Your task to perform on an android device: View the shopping cart on amazon. Add bose soundlink to the cart on amazon Image 0: 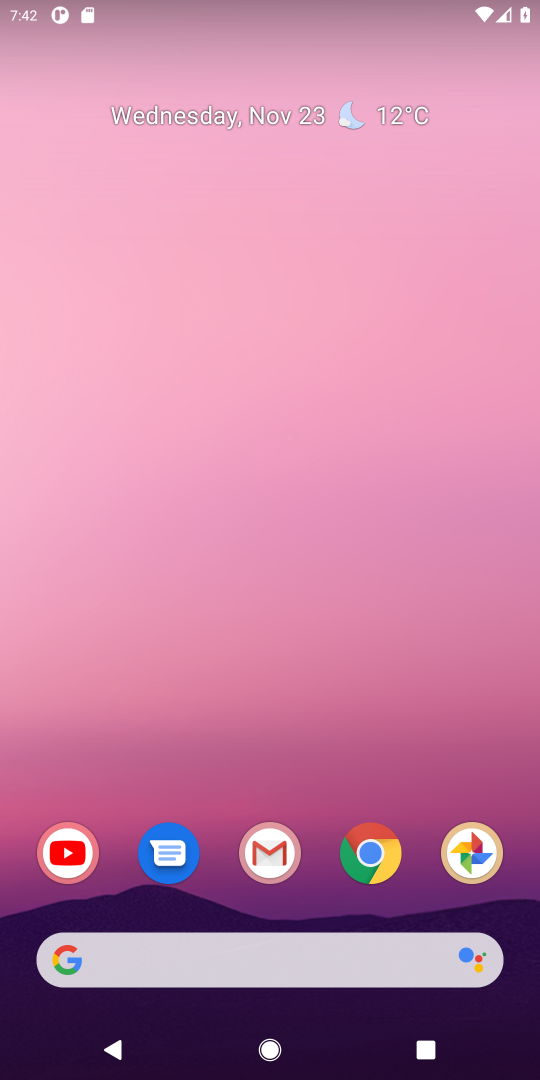
Step 0: click (378, 877)
Your task to perform on an android device: View the shopping cart on amazon. Add bose soundlink to the cart on amazon Image 1: 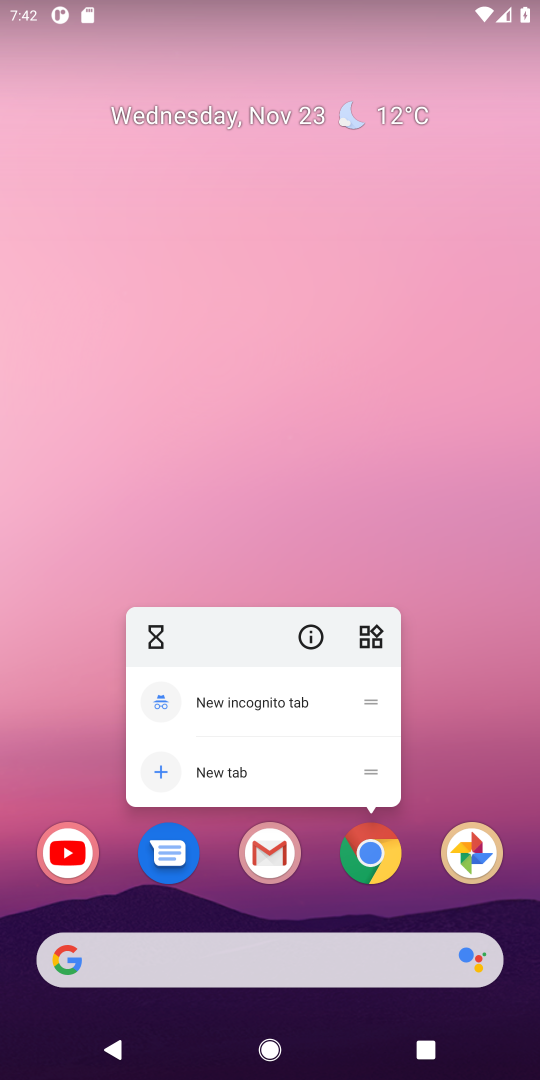
Step 1: click (378, 861)
Your task to perform on an android device: View the shopping cart on amazon. Add bose soundlink to the cart on amazon Image 2: 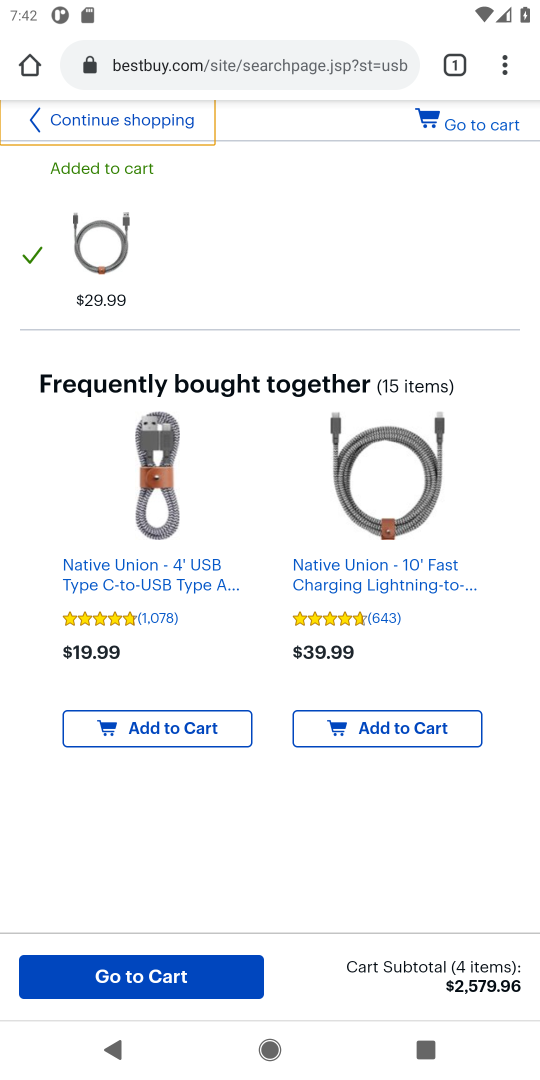
Step 2: click (200, 66)
Your task to perform on an android device: View the shopping cart on amazon. Add bose soundlink to the cart on amazon Image 3: 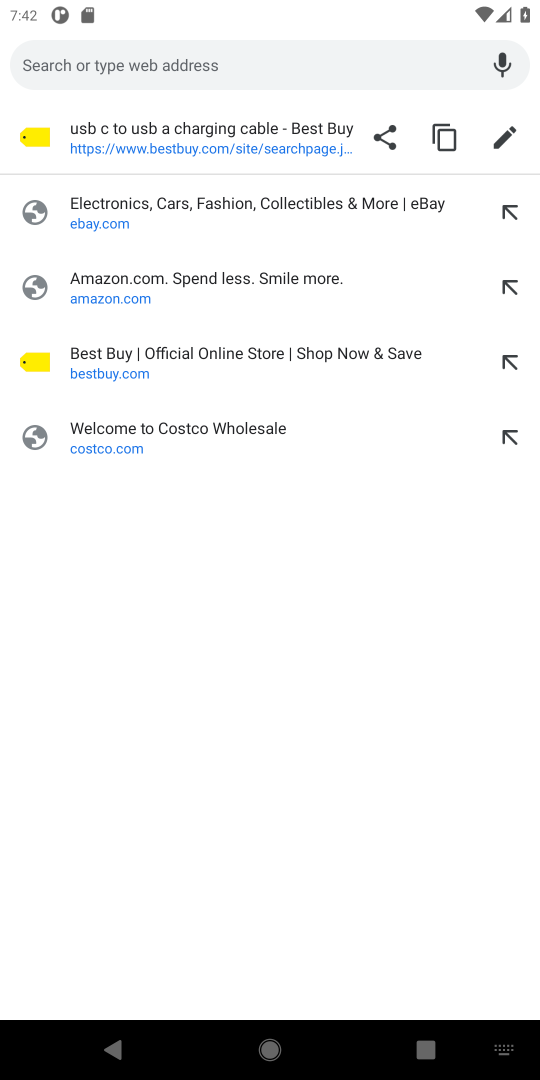
Step 3: click (104, 280)
Your task to perform on an android device: View the shopping cart on amazon. Add bose soundlink to the cart on amazon Image 4: 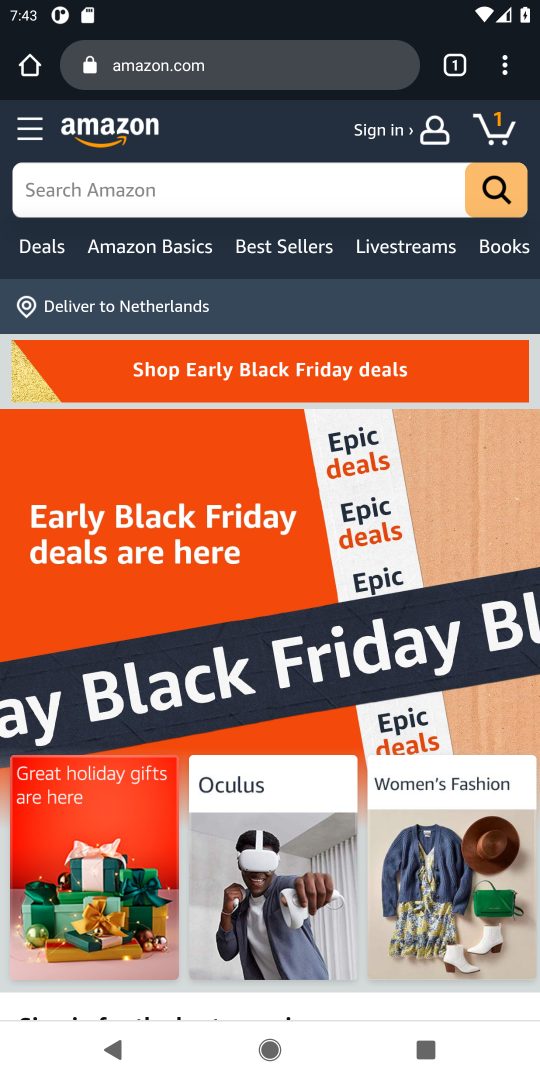
Step 4: click (498, 132)
Your task to perform on an android device: View the shopping cart on amazon. Add bose soundlink to the cart on amazon Image 5: 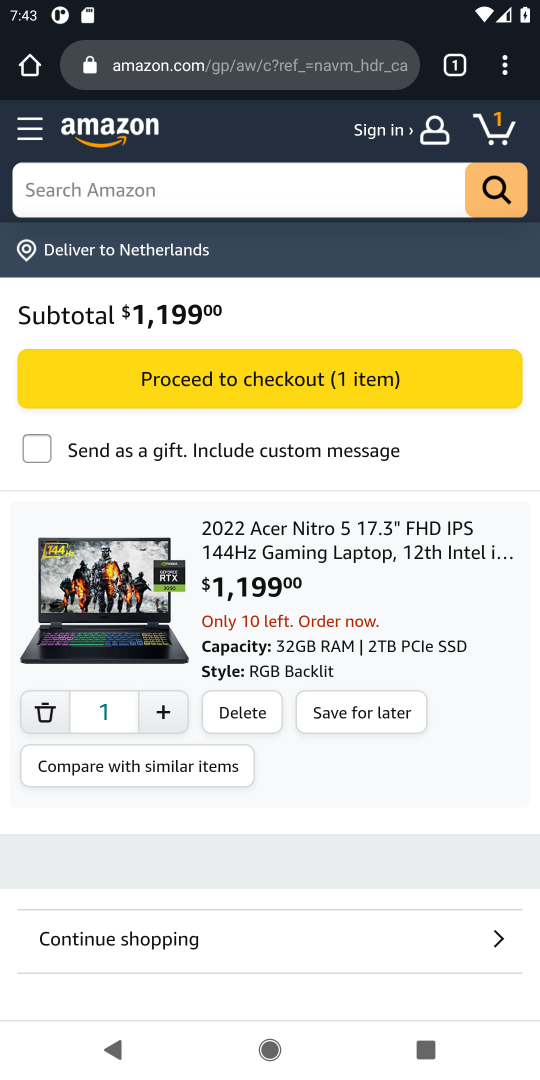
Step 5: click (140, 194)
Your task to perform on an android device: View the shopping cart on amazon. Add bose soundlink to the cart on amazon Image 6: 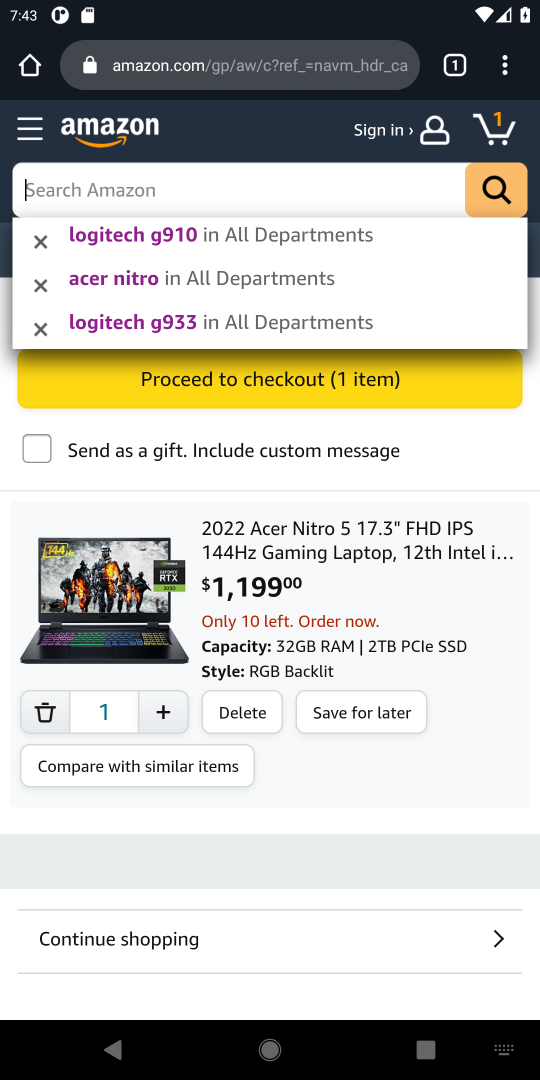
Step 6: type "bose soundlink"
Your task to perform on an android device: View the shopping cart on amazon. Add bose soundlink to the cart on amazon Image 7: 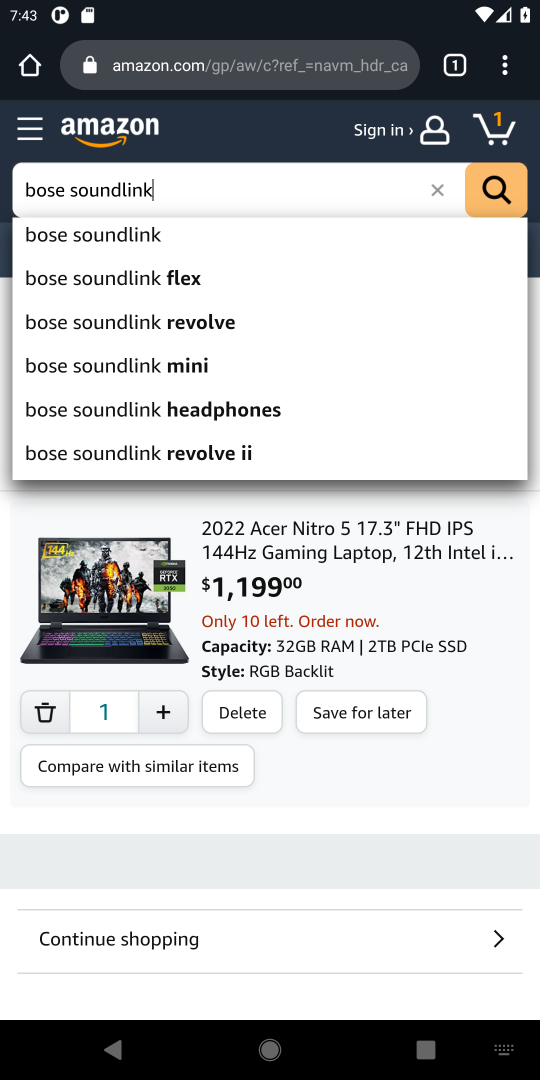
Step 7: click (91, 239)
Your task to perform on an android device: View the shopping cart on amazon. Add bose soundlink to the cart on amazon Image 8: 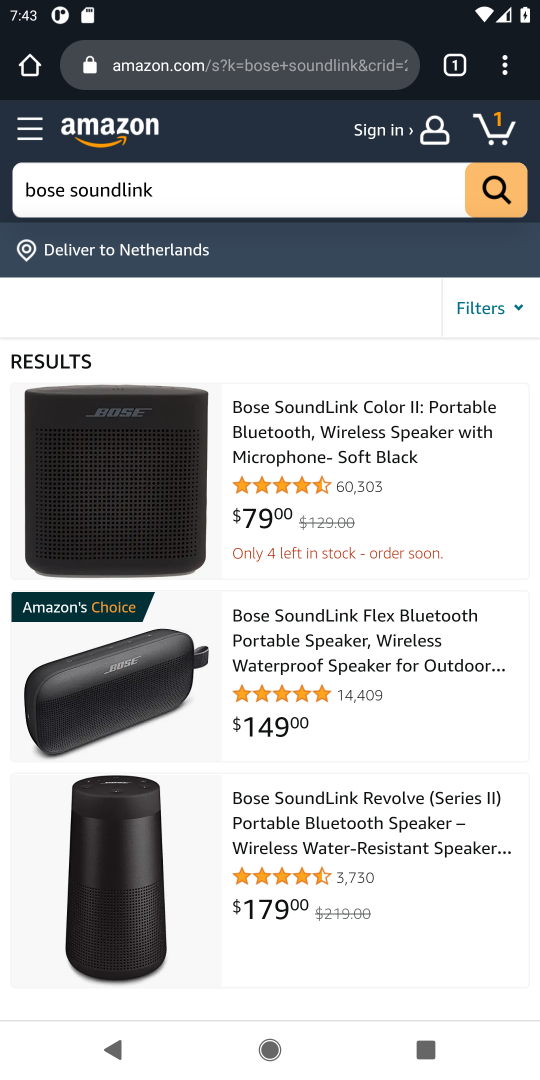
Step 8: click (86, 489)
Your task to perform on an android device: View the shopping cart on amazon. Add bose soundlink to the cart on amazon Image 9: 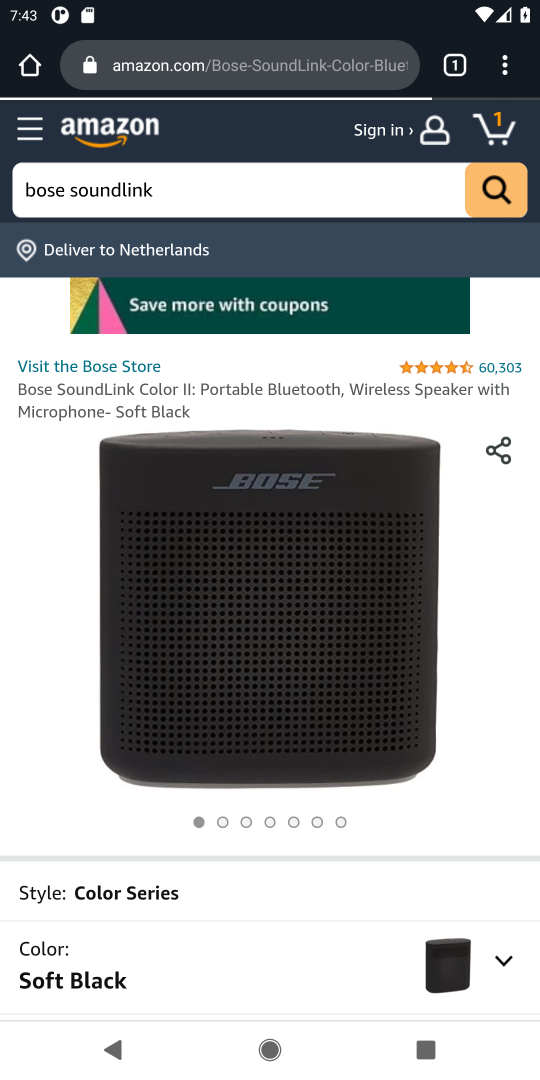
Step 9: drag from (367, 809) to (366, 365)
Your task to perform on an android device: View the shopping cart on amazon. Add bose soundlink to the cart on amazon Image 10: 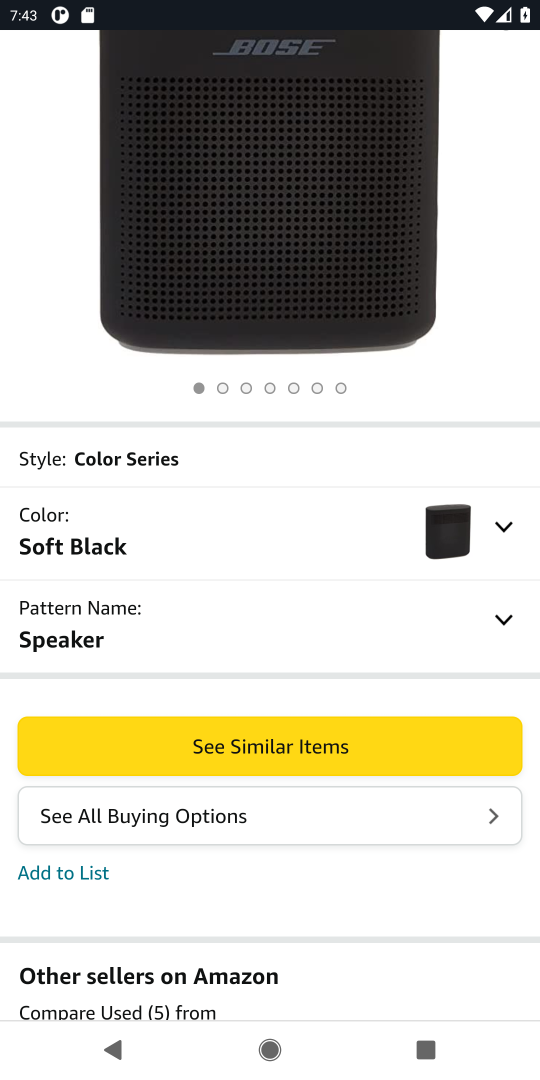
Step 10: press back button
Your task to perform on an android device: View the shopping cart on amazon. Add bose soundlink to the cart on amazon Image 11: 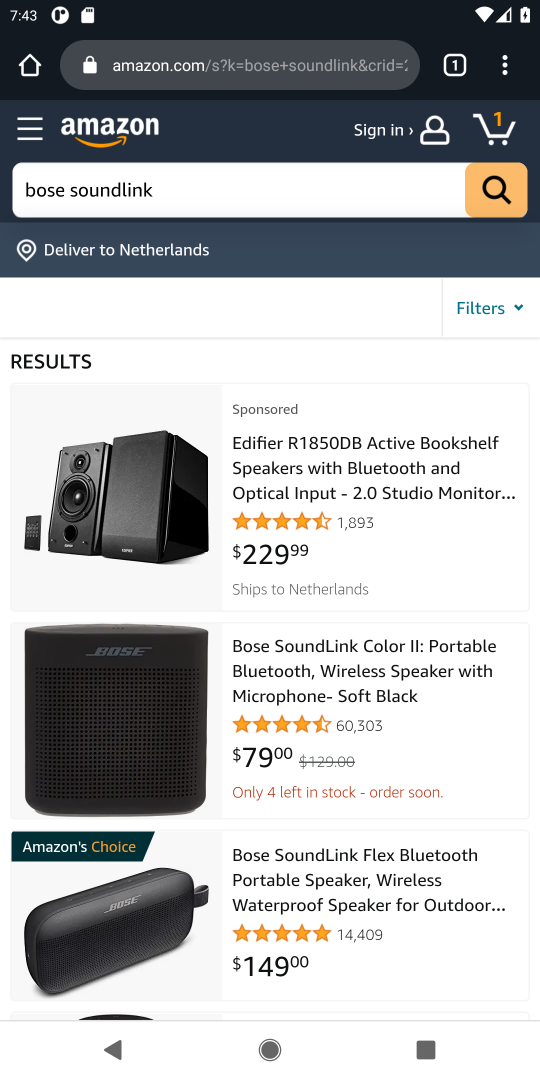
Step 11: drag from (201, 634) to (208, 454)
Your task to perform on an android device: View the shopping cart on amazon. Add bose soundlink to the cart on amazon Image 12: 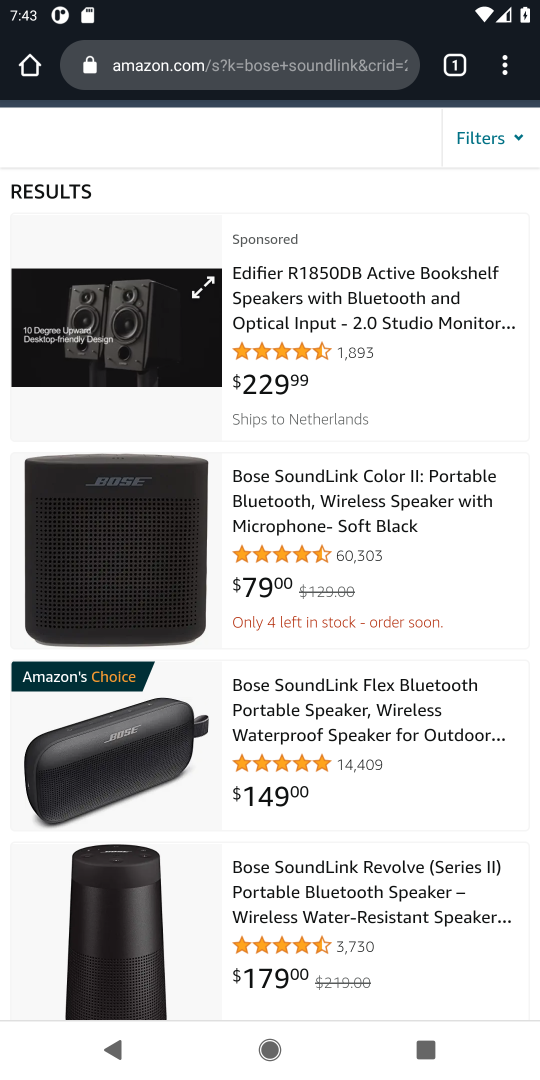
Step 12: click (136, 576)
Your task to perform on an android device: View the shopping cart on amazon. Add bose soundlink to the cart on amazon Image 13: 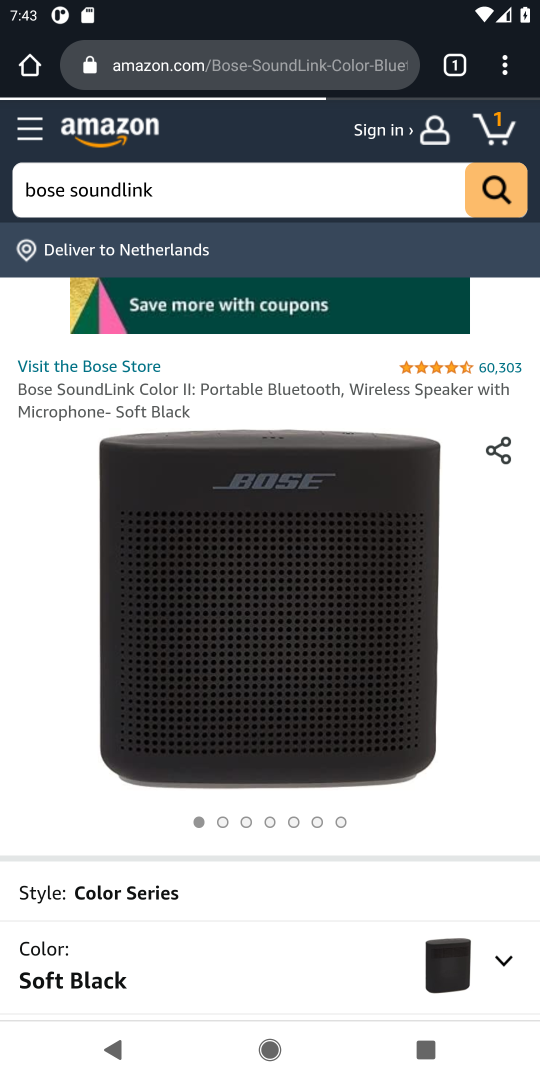
Step 13: drag from (178, 741) to (195, 349)
Your task to perform on an android device: View the shopping cart on amazon. Add bose soundlink to the cart on amazon Image 14: 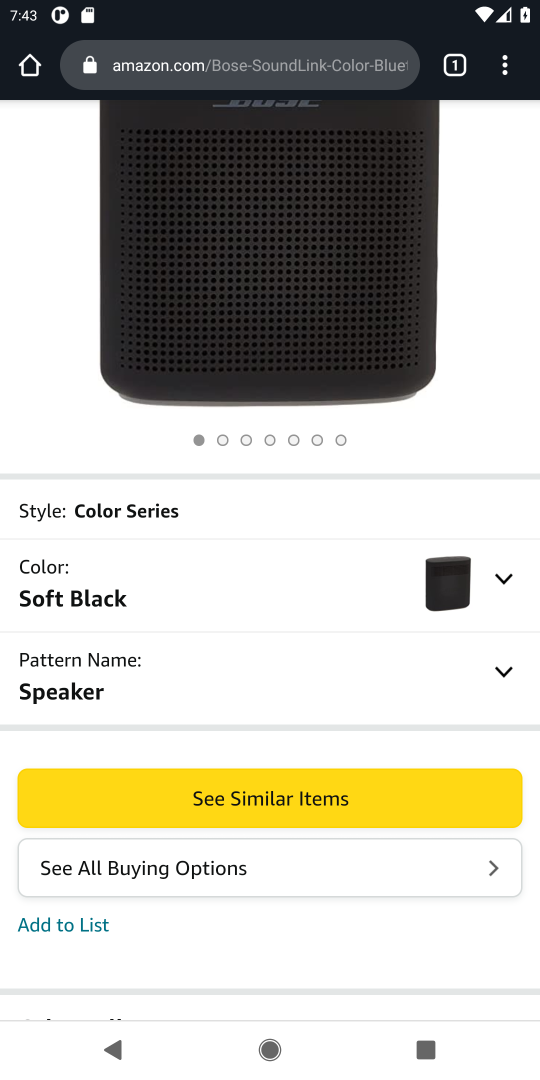
Step 14: press back button
Your task to perform on an android device: View the shopping cart on amazon. Add bose soundlink to the cart on amazon Image 15: 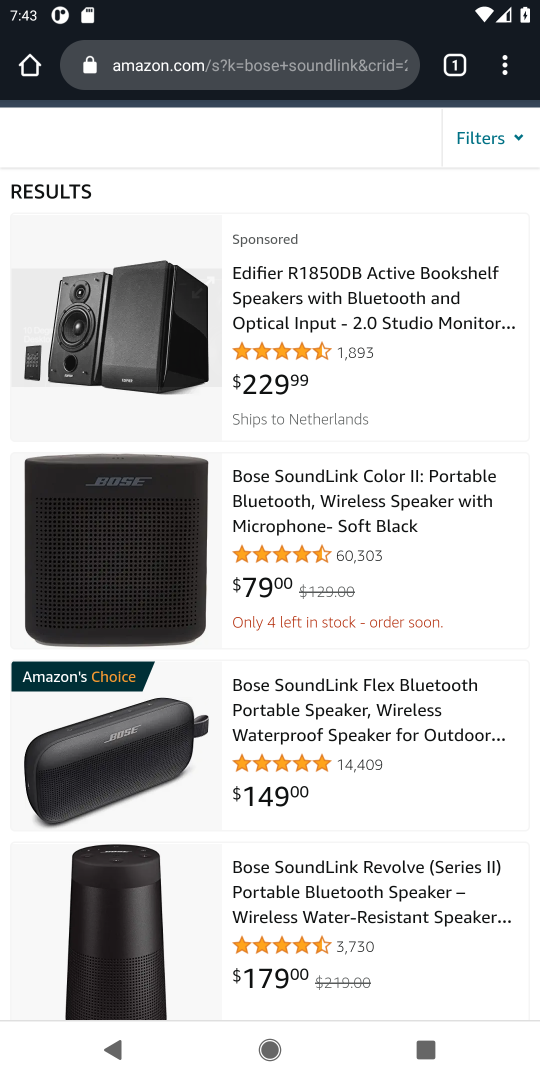
Step 15: drag from (146, 745) to (144, 554)
Your task to perform on an android device: View the shopping cart on amazon. Add bose soundlink to the cart on amazon Image 16: 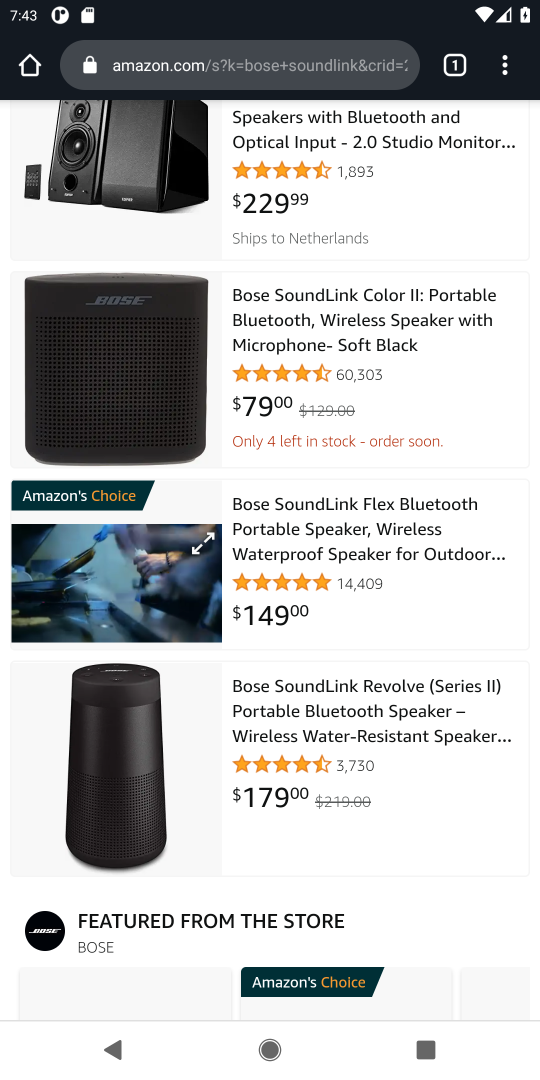
Step 16: click (126, 579)
Your task to perform on an android device: View the shopping cart on amazon. Add bose soundlink to the cart on amazon Image 17: 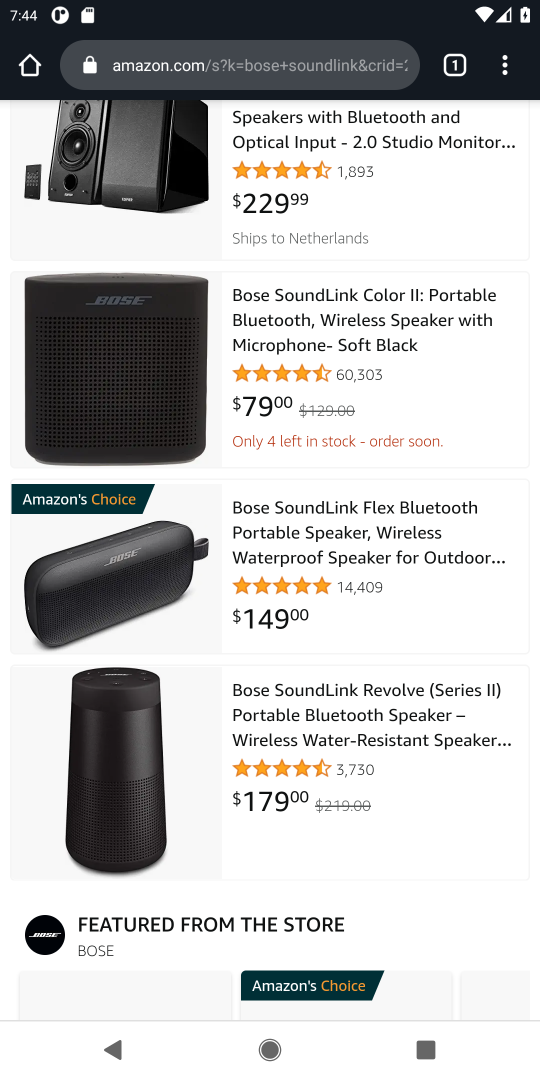
Step 17: click (280, 559)
Your task to perform on an android device: View the shopping cart on amazon. Add bose soundlink to the cart on amazon Image 18: 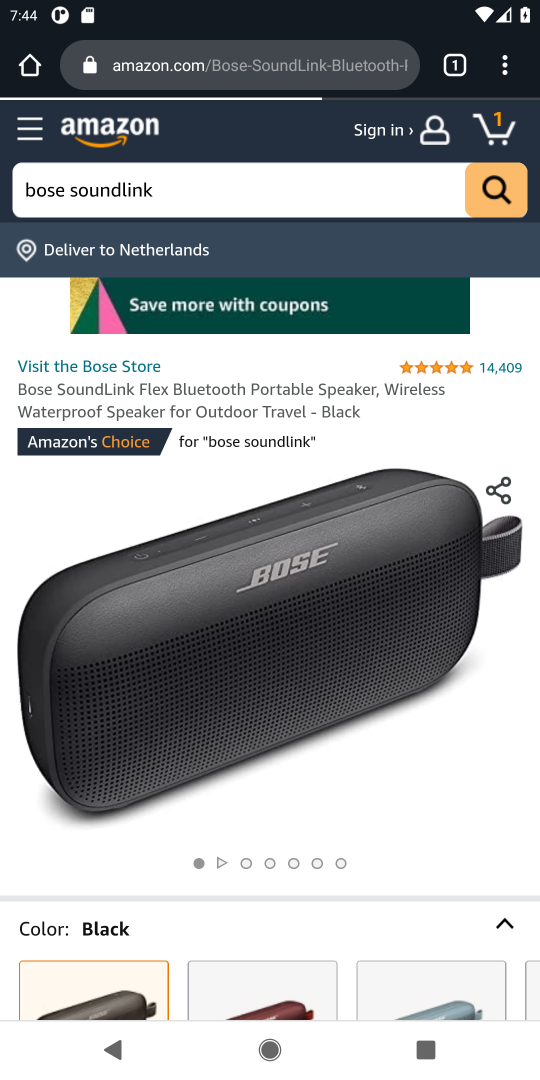
Step 18: drag from (245, 725) to (282, 302)
Your task to perform on an android device: View the shopping cart on amazon. Add bose soundlink to the cart on amazon Image 19: 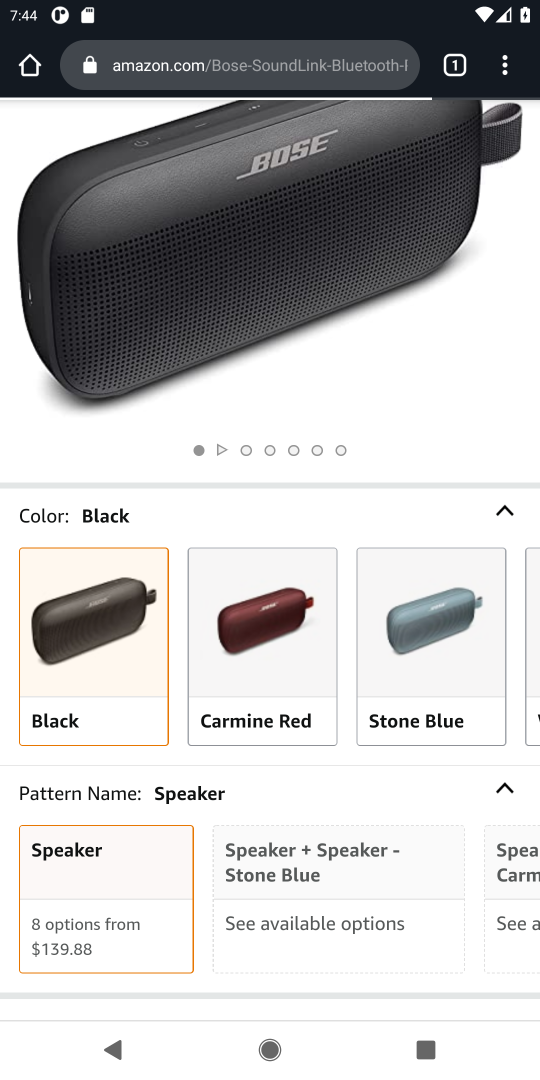
Step 19: drag from (265, 761) to (248, 265)
Your task to perform on an android device: View the shopping cart on amazon. Add bose soundlink to the cart on amazon Image 20: 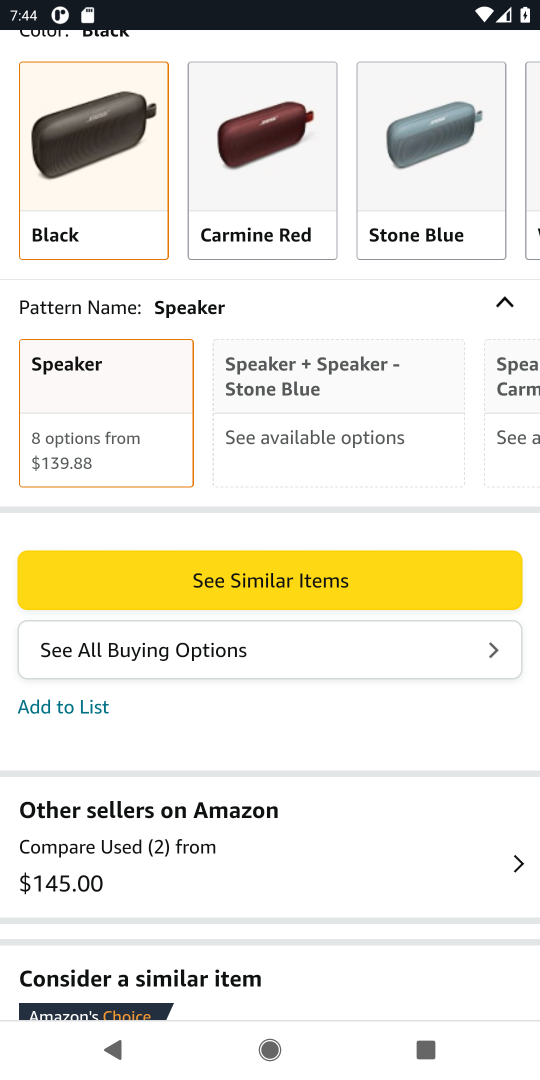
Step 20: press back button
Your task to perform on an android device: View the shopping cart on amazon. Add bose soundlink to the cart on amazon Image 21: 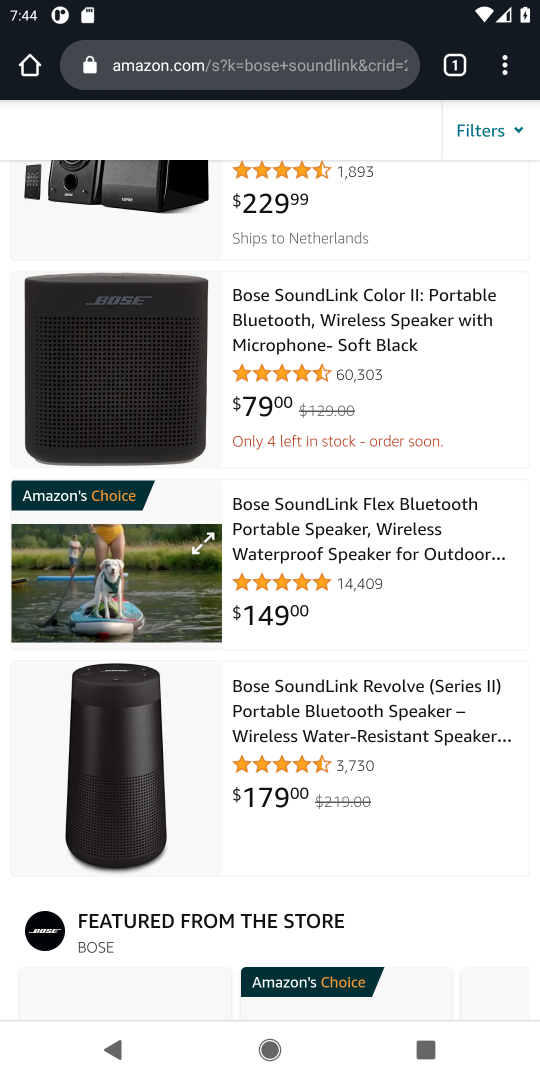
Step 21: drag from (198, 777) to (214, 319)
Your task to perform on an android device: View the shopping cart on amazon. Add bose soundlink to the cart on amazon Image 22: 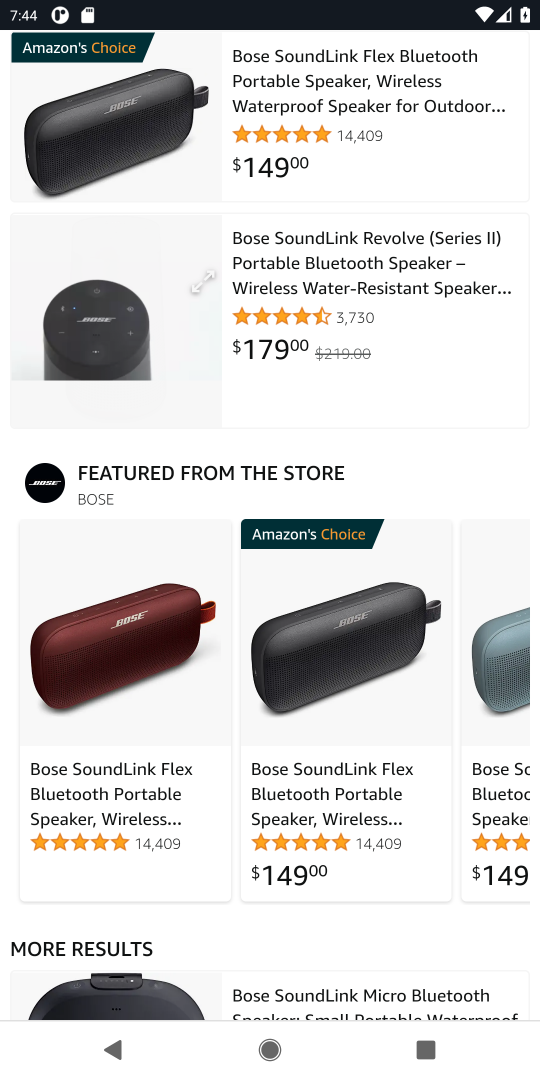
Step 22: drag from (176, 693) to (189, 542)
Your task to perform on an android device: View the shopping cart on amazon. Add bose soundlink to the cart on amazon Image 23: 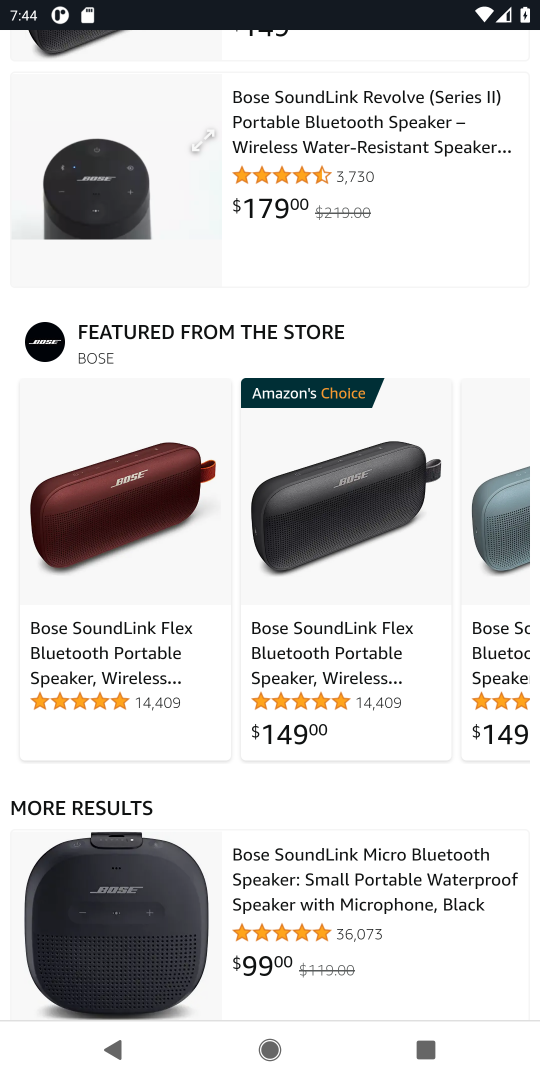
Step 23: drag from (152, 756) to (171, 499)
Your task to perform on an android device: View the shopping cart on amazon. Add bose soundlink to the cart on amazon Image 24: 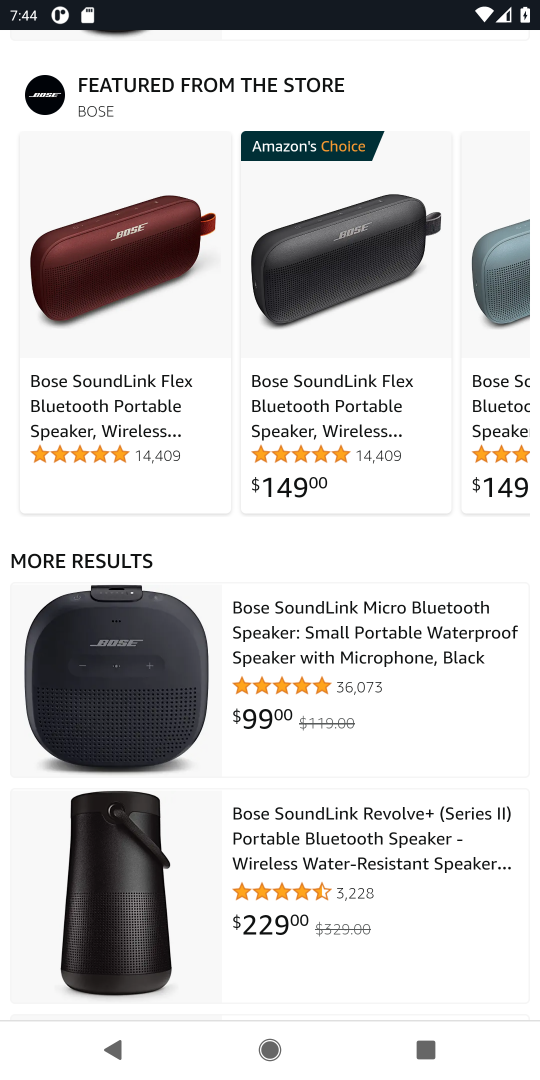
Step 24: click (103, 700)
Your task to perform on an android device: View the shopping cart on amazon. Add bose soundlink to the cart on amazon Image 25: 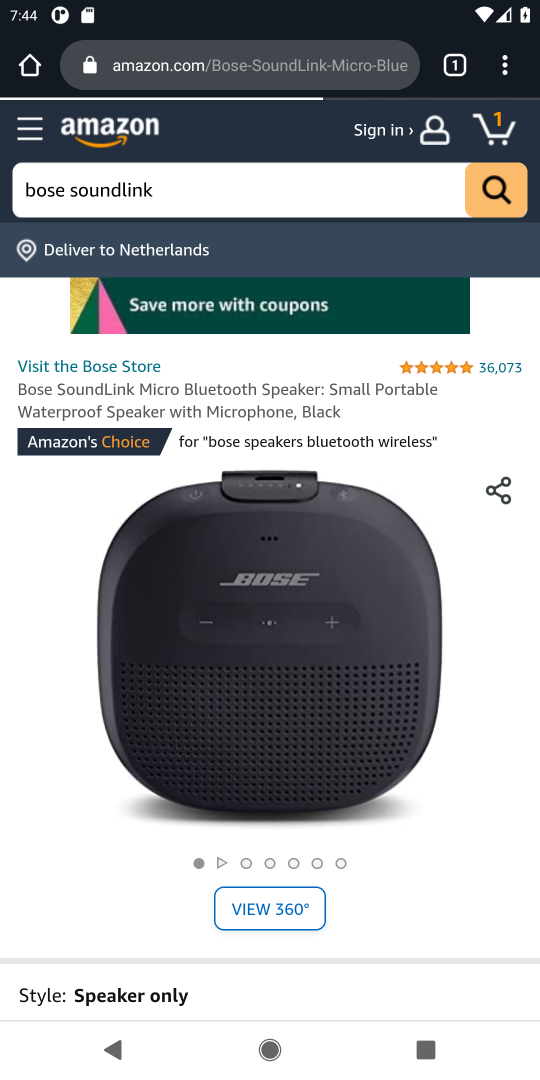
Step 25: task complete